Your task to perform on an android device: Who is the prime minister of the United Kingdom? Image 0: 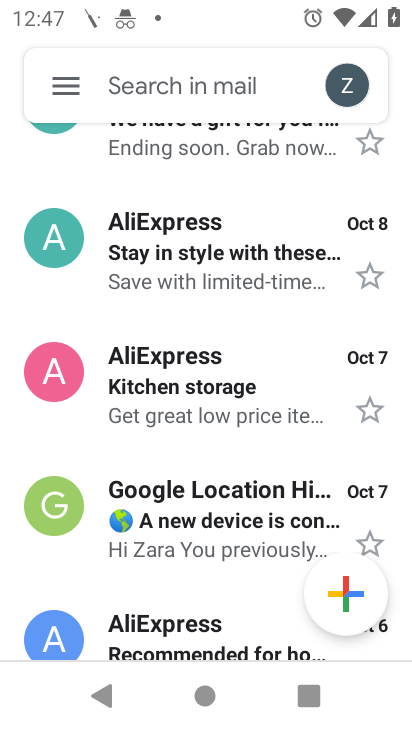
Step 0: press home button
Your task to perform on an android device: Who is the prime minister of the United Kingdom? Image 1: 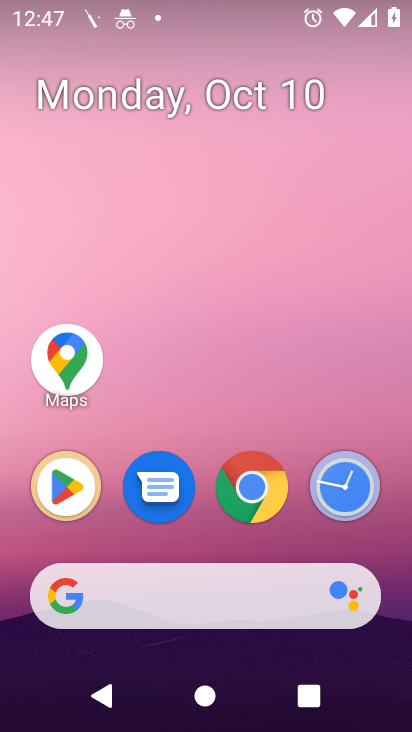
Step 1: click (235, 485)
Your task to perform on an android device: Who is the prime minister of the United Kingdom? Image 2: 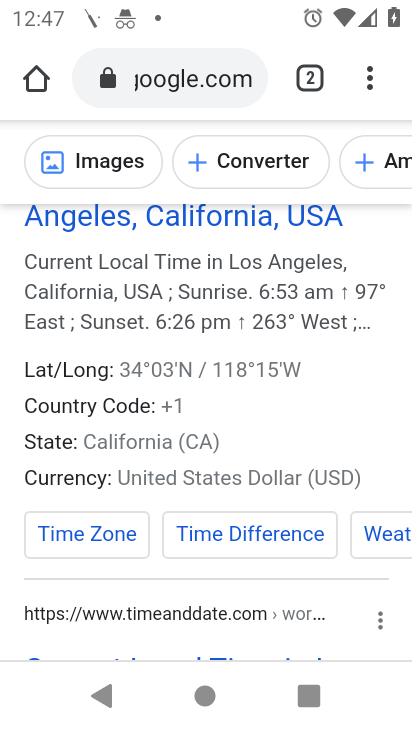
Step 2: click (188, 80)
Your task to perform on an android device: Who is the prime minister of the United Kingdom? Image 3: 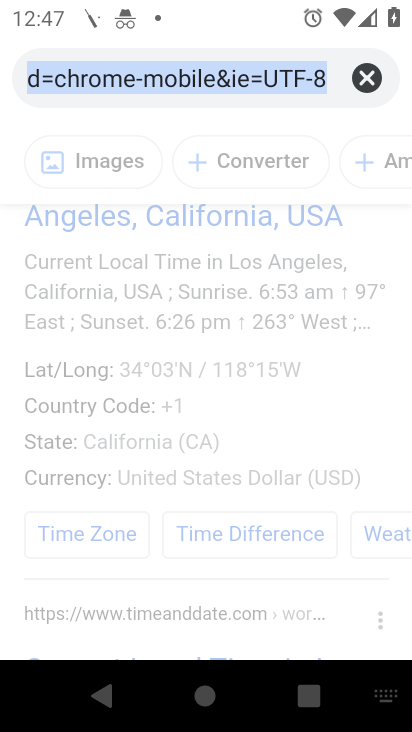
Step 3: type "prime minister of the United Kingdom"
Your task to perform on an android device: Who is the prime minister of the United Kingdom? Image 4: 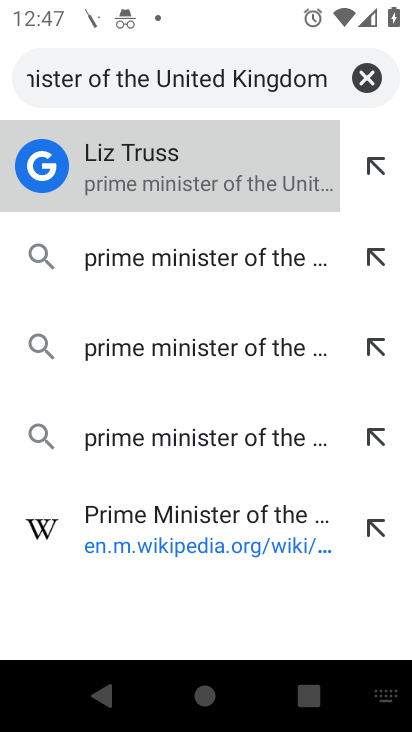
Step 4: press enter
Your task to perform on an android device: Who is the prime minister of the United Kingdom? Image 5: 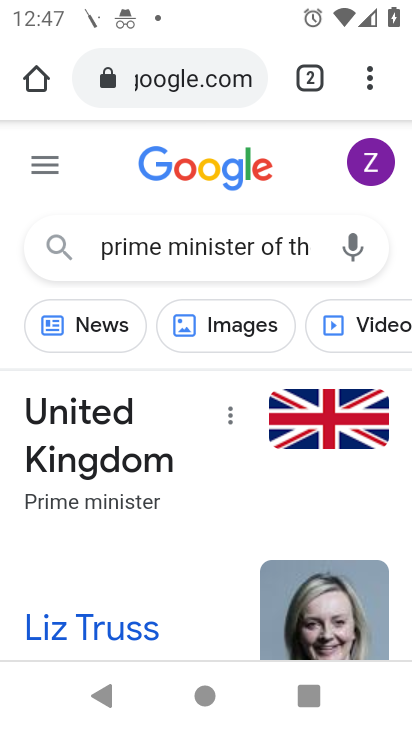
Step 5: task complete